Your task to perform on an android device: Open calendar and show me the fourth week of next month Image 0: 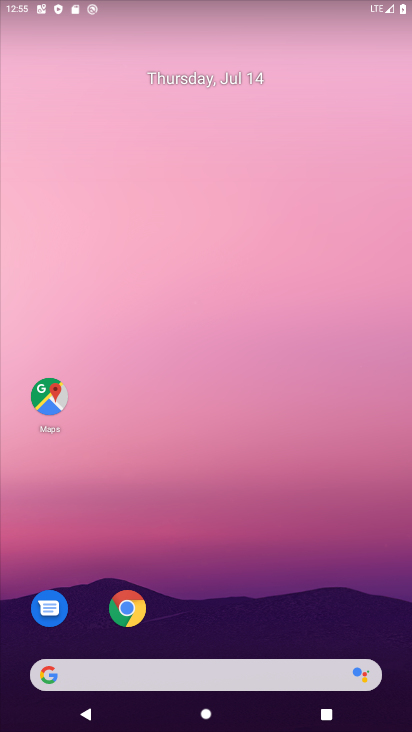
Step 0: drag from (2, 698) to (306, 78)
Your task to perform on an android device: Open calendar and show me the fourth week of next month Image 1: 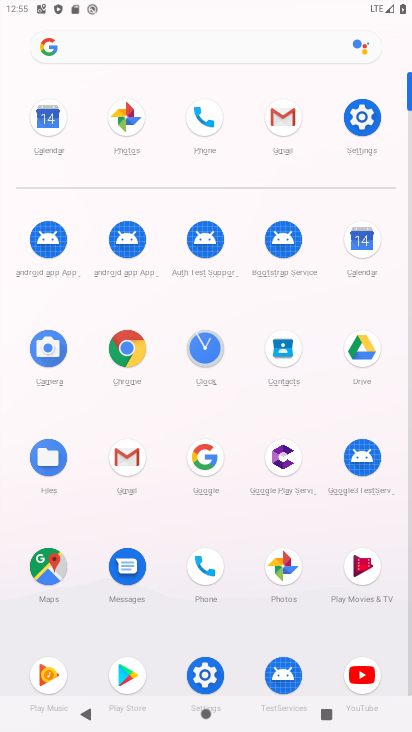
Step 1: click (351, 256)
Your task to perform on an android device: Open calendar and show me the fourth week of next month Image 2: 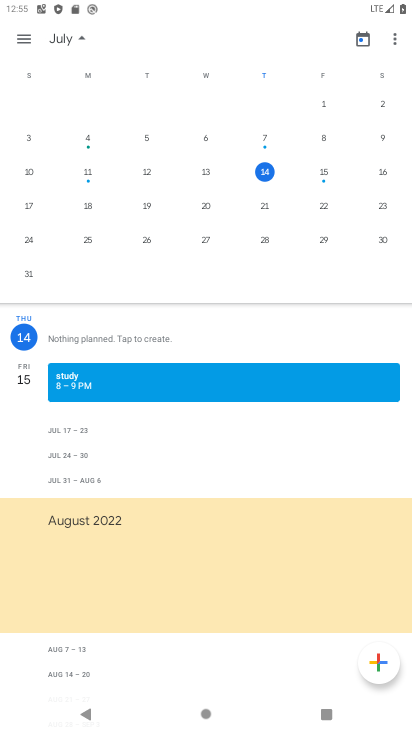
Step 2: task complete